Your task to perform on an android device: Turn on the flashlight Image 0: 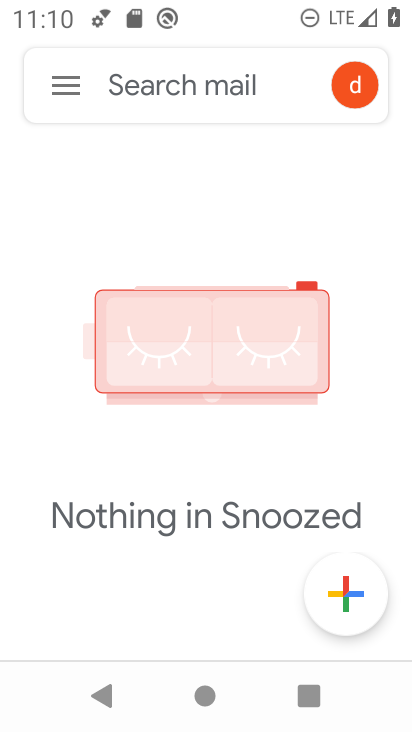
Step 0: press home button
Your task to perform on an android device: Turn on the flashlight Image 1: 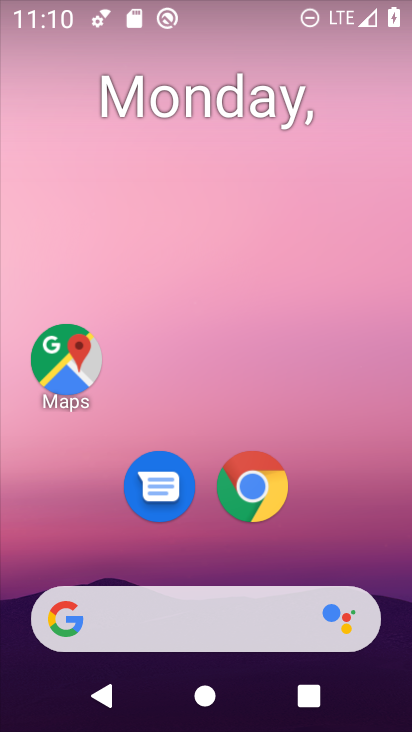
Step 1: drag from (56, 562) to (236, 238)
Your task to perform on an android device: Turn on the flashlight Image 2: 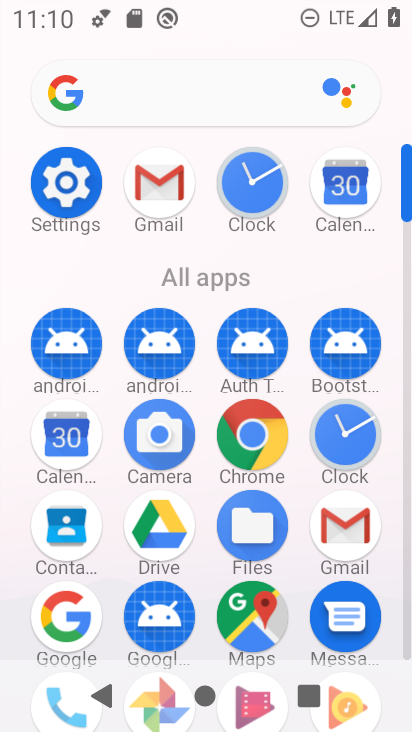
Step 2: click (79, 195)
Your task to perform on an android device: Turn on the flashlight Image 3: 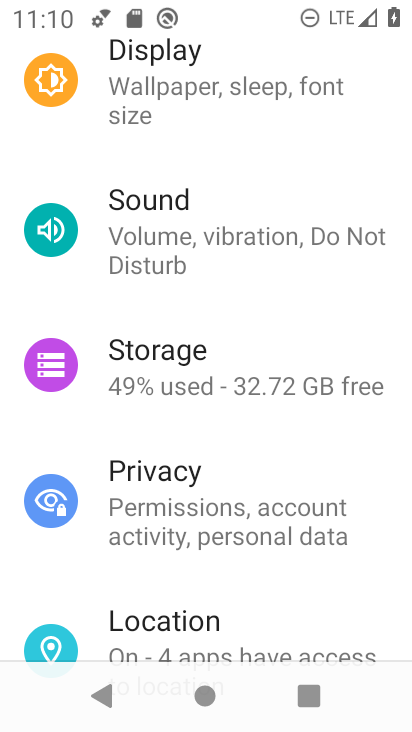
Step 3: task complete